Your task to perform on an android device: Open location settings Image 0: 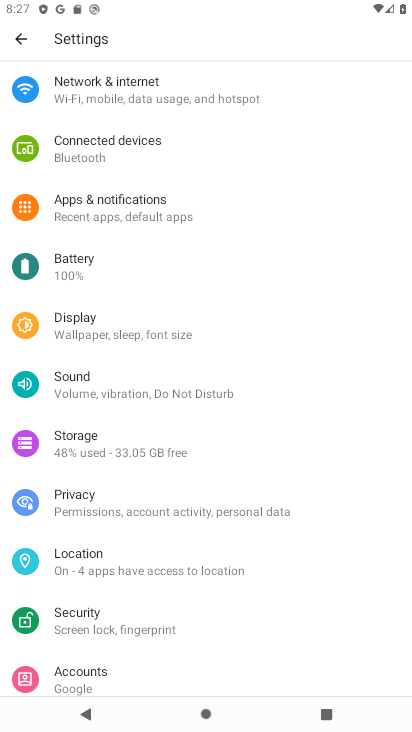
Step 0: click (188, 558)
Your task to perform on an android device: Open location settings Image 1: 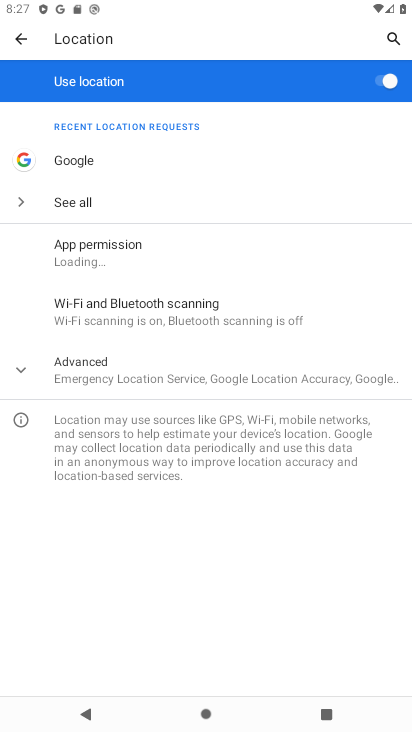
Step 1: task complete